Your task to perform on an android device: Go to internet settings Image 0: 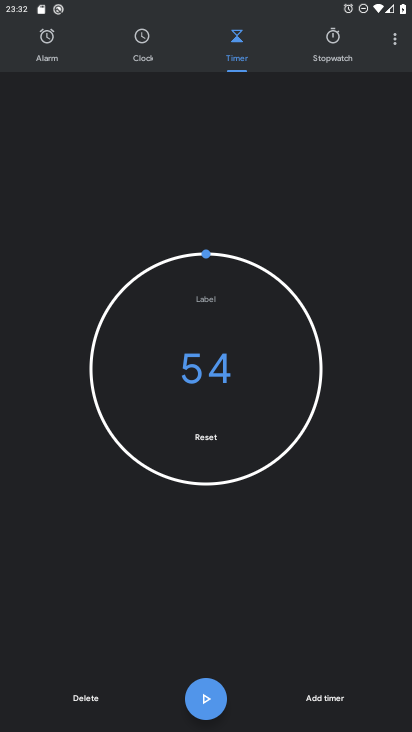
Step 0: press home button
Your task to perform on an android device: Go to internet settings Image 1: 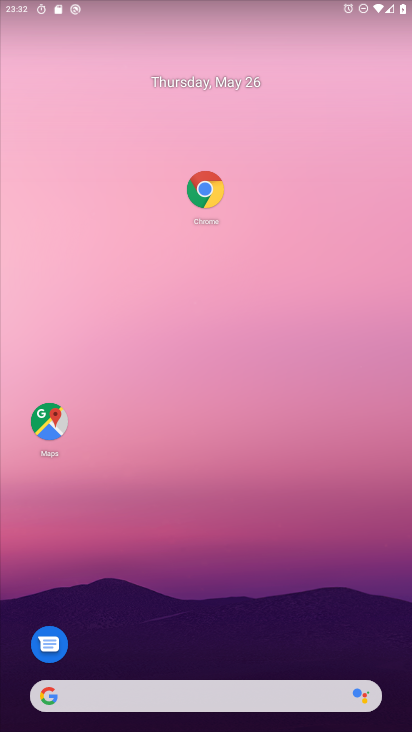
Step 1: drag from (210, 645) to (205, 143)
Your task to perform on an android device: Go to internet settings Image 2: 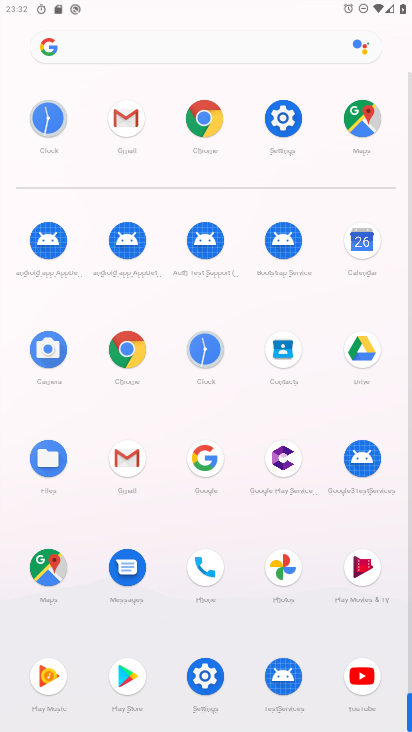
Step 2: click (207, 662)
Your task to perform on an android device: Go to internet settings Image 3: 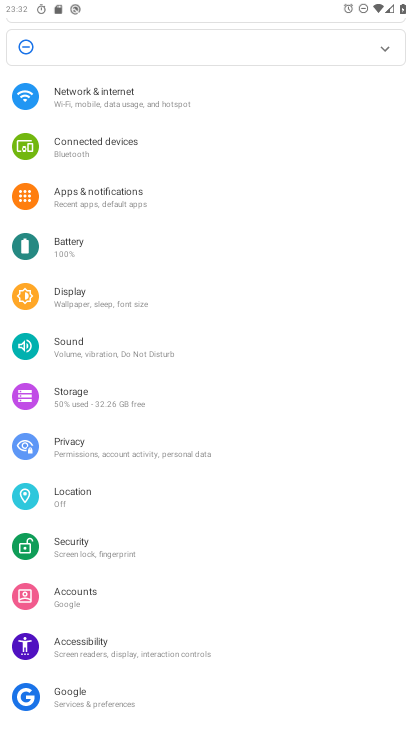
Step 3: click (95, 97)
Your task to perform on an android device: Go to internet settings Image 4: 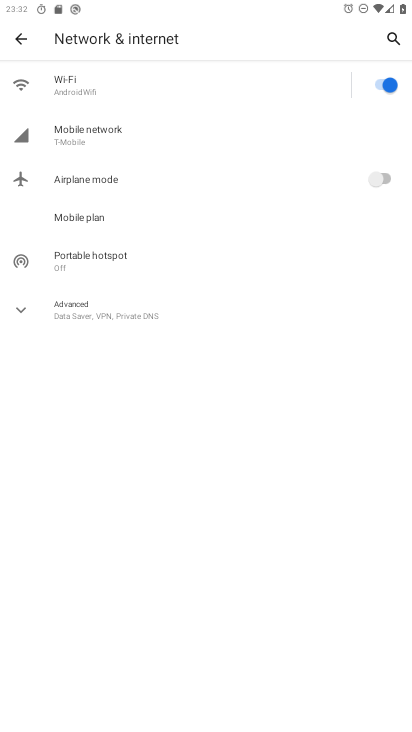
Step 4: task complete